Your task to perform on an android device: Go to ESPN.com Image 0: 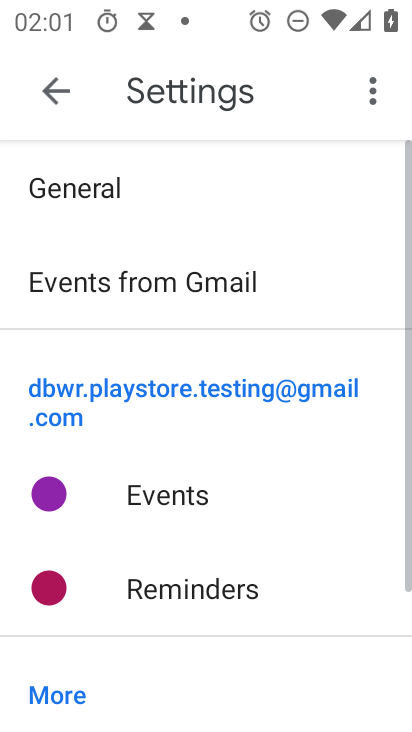
Step 0: press home button
Your task to perform on an android device: Go to ESPN.com Image 1: 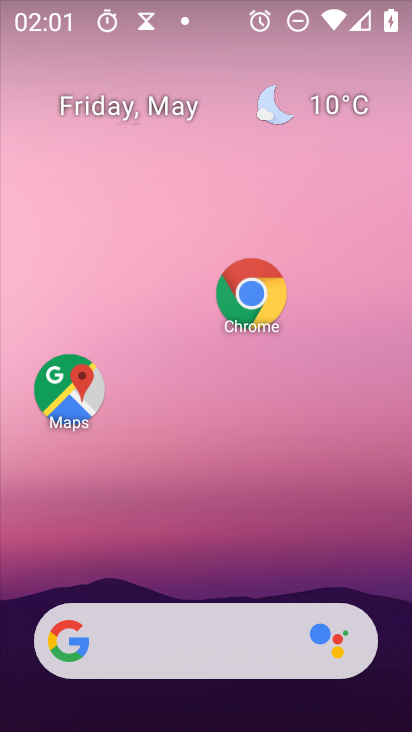
Step 1: click (254, 293)
Your task to perform on an android device: Go to ESPN.com Image 2: 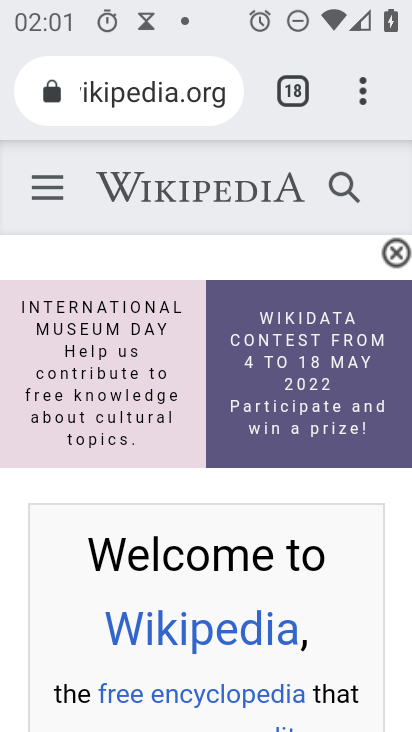
Step 2: drag from (361, 101) to (237, 179)
Your task to perform on an android device: Go to ESPN.com Image 3: 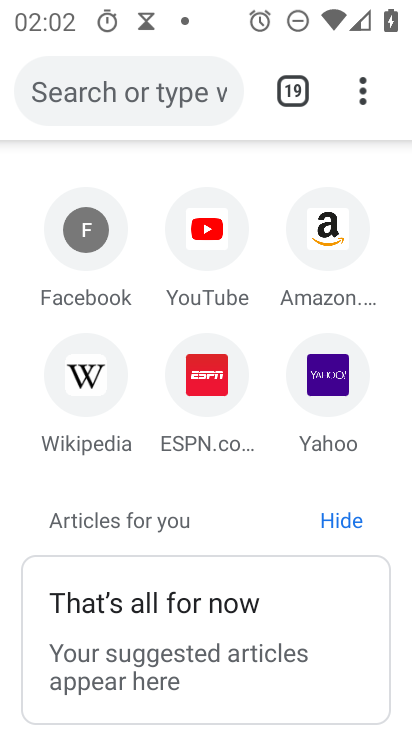
Step 3: click (211, 369)
Your task to perform on an android device: Go to ESPN.com Image 4: 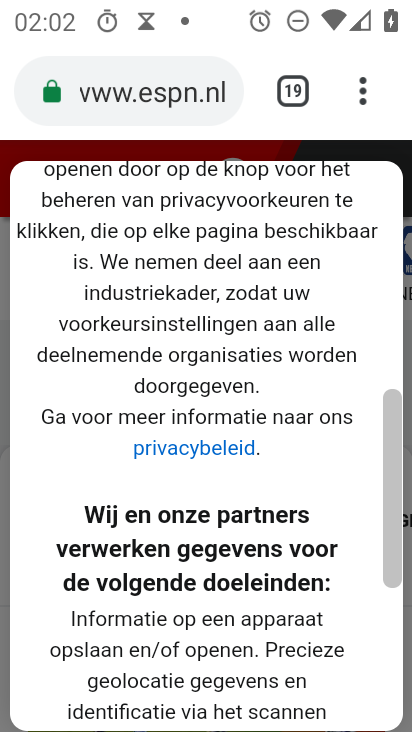
Step 4: task complete